Your task to perform on an android device: see creations saved in the google photos Image 0: 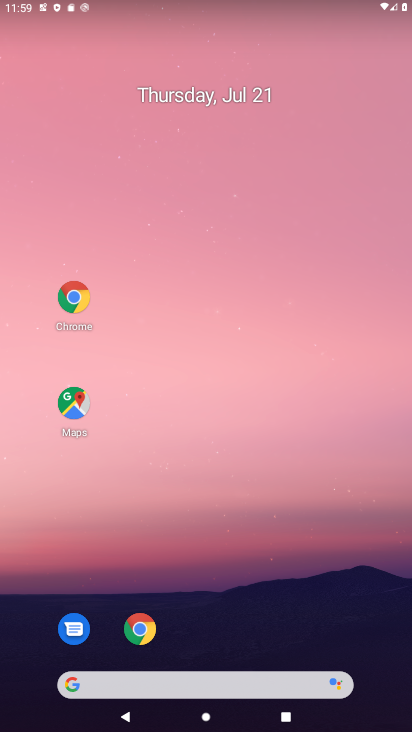
Step 0: drag from (270, 643) to (344, 267)
Your task to perform on an android device: see creations saved in the google photos Image 1: 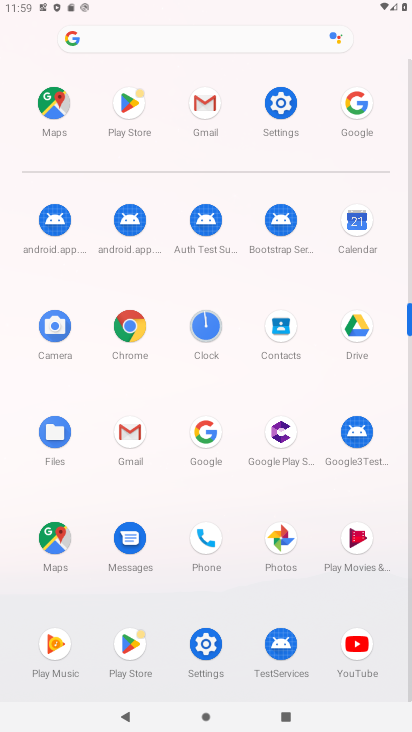
Step 1: click (283, 540)
Your task to perform on an android device: see creations saved in the google photos Image 2: 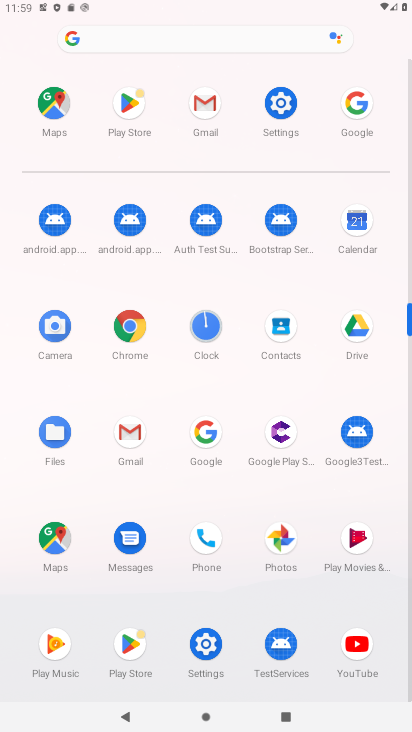
Step 2: click (283, 540)
Your task to perform on an android device: see creations saved in the google photos Image 3: 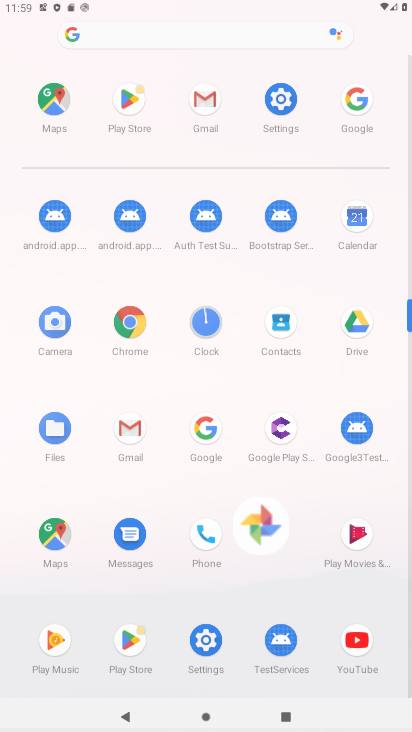
Step 3: click (284, 540)
Your task to perform on an android device: see creations saved in the google photos Image 4: 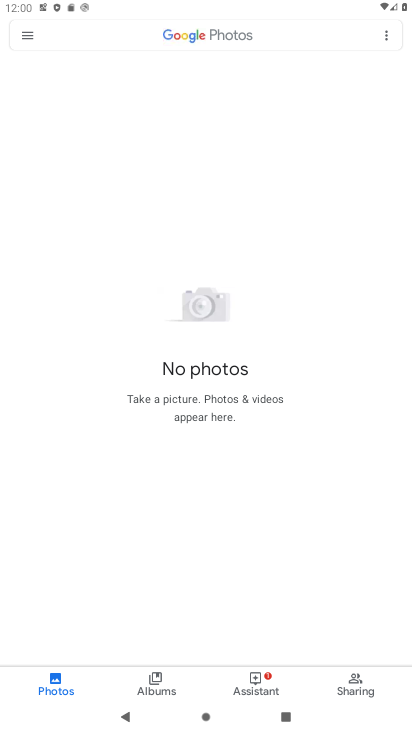
Step 4: task complete